Your task to perform on an android device: turn off smart reply in the gmail app Image 0: 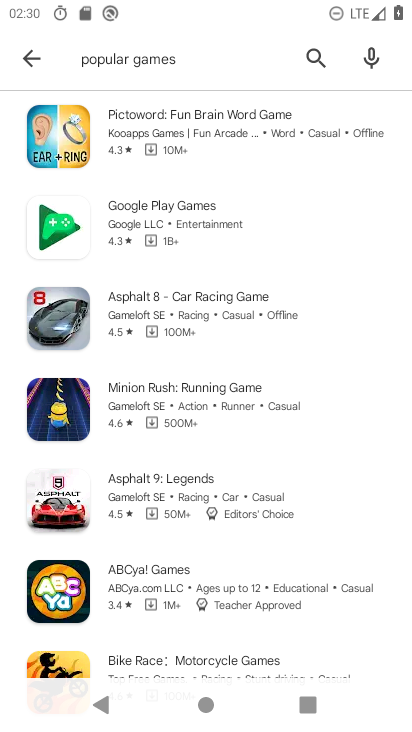
Step 0: press home button
Your task to perform on an android device: turn off smart reply in the gmail app Image 1: 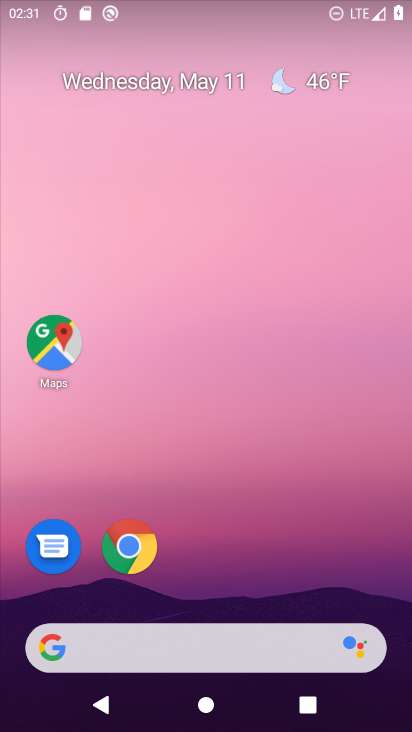
Step 1: drag from (260, 672) to (289, 22)
Your task to perform on an android device: turn off smart reply in the gmail app Image 2: 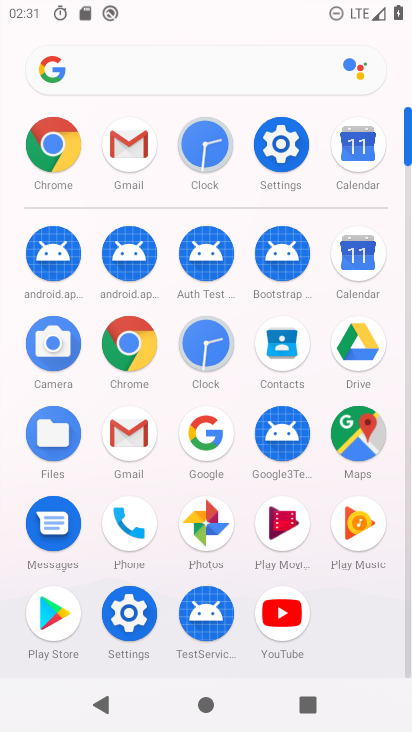
Step 2: click (129, 150)
Your task to perform on an android device: turn off smart reply in the gmail app Image 3: 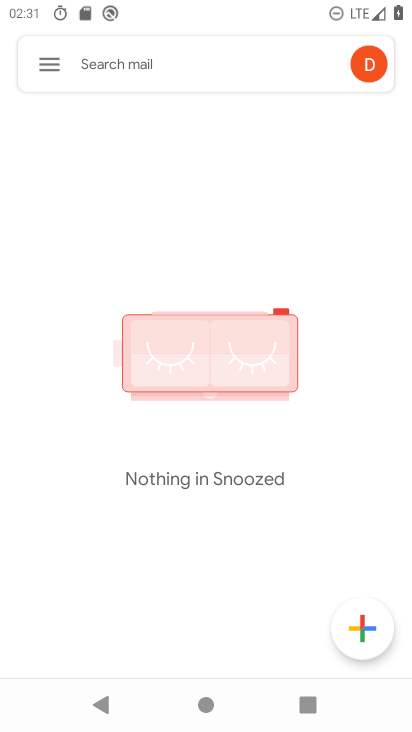
Step 3: click (49, 67)
Your task to perform on an android device: turn off smart reply in the gmail app Image 4: 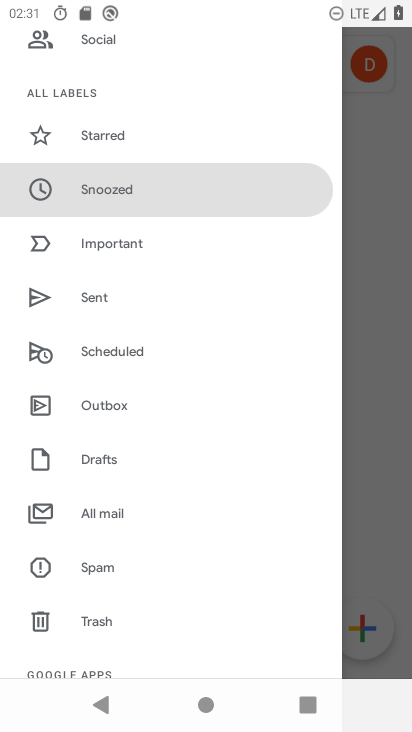
Step 4: drag from (106, 507) to (190, 188)
Your task to perform on an android device: turn off smart reply in the gmail app Image 5: 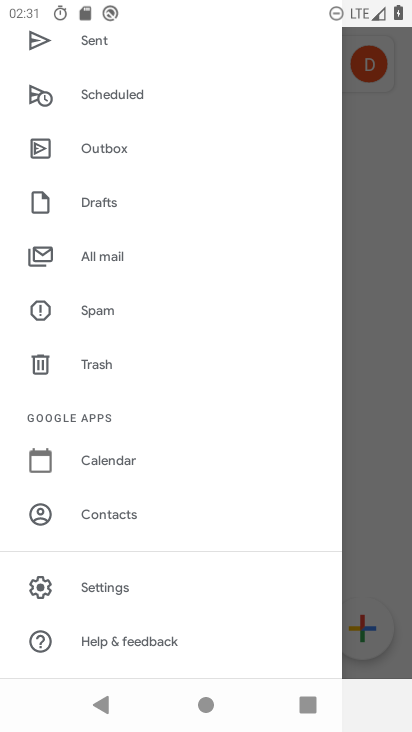
Step 5: click (103, 587)
Your task to perform on an android device: turn off smart reply in the gmail app Image 6: 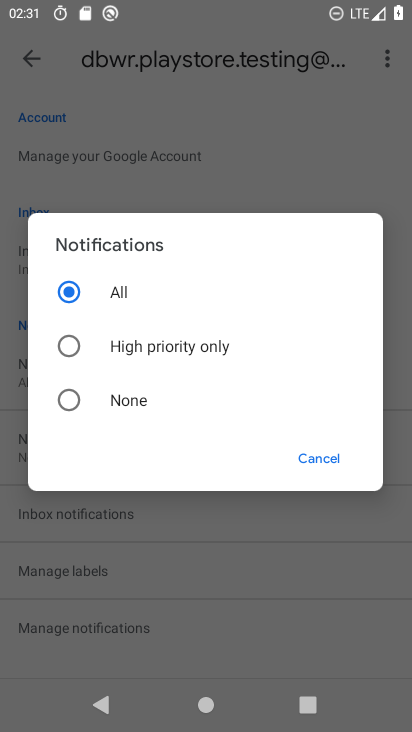
Step 6: click (124, 392)
Your task to perform on an android device: turn off smart reply in the gmail app Image 7: 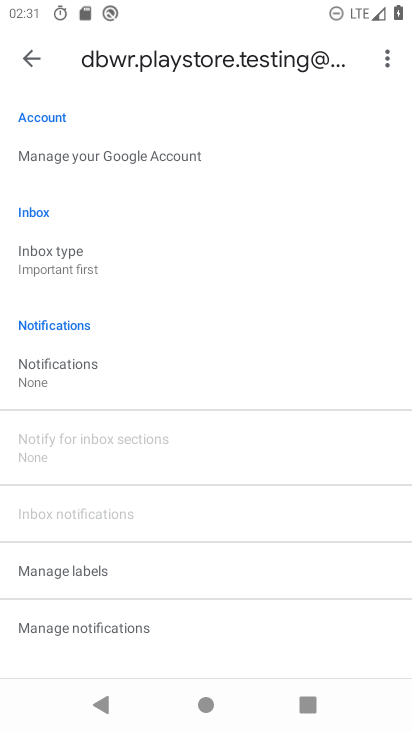
Step 7: task complete